Your task to perform on an android device: see tabs open on other devices in the chrome app Image 0: 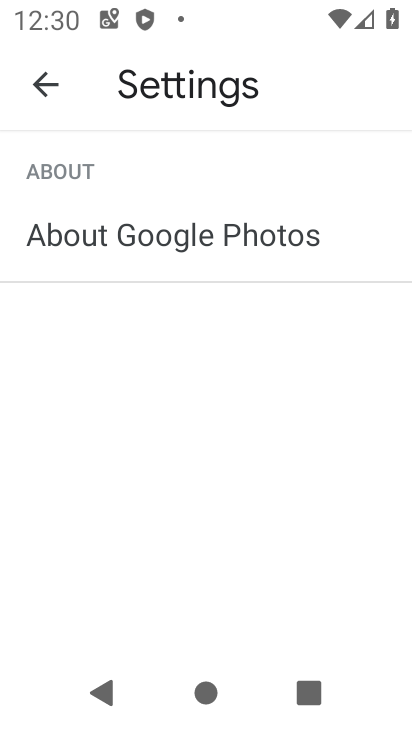
Step 0: press back button
Your task to perform on an android device: see tabs open on other devices in the chrome app Image 1: 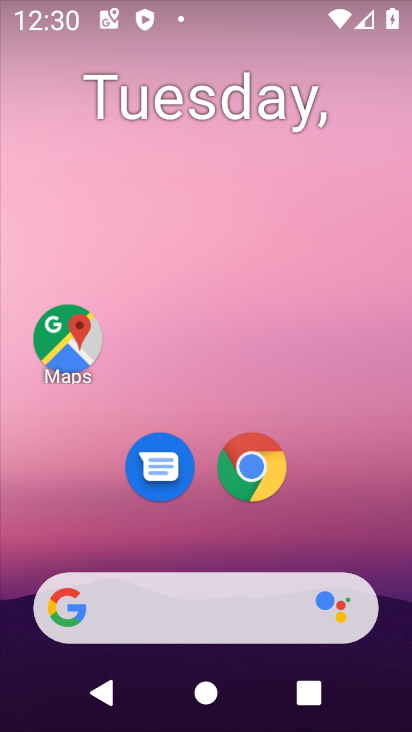
Step 1: drag from (357, 516) to (242, 0)
Your task to perform on an android device: see tabs open on other devices in the chrome app Image 2: 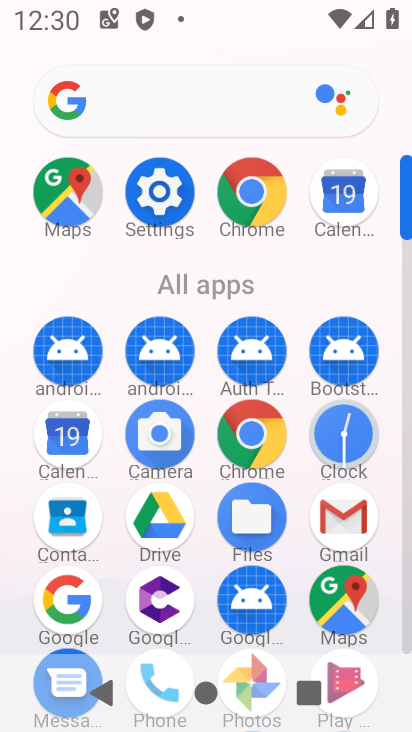
Step 2: click (253, 198)
Your task to perform on an android device: see tabs open on other devices in the chrome app Image 3: 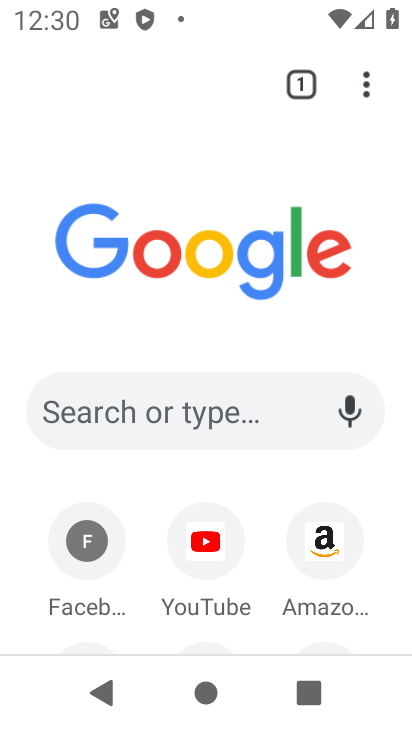
Step 3: task complete